Your task to perform on an android device: Open settings on Google Maps Image 0: 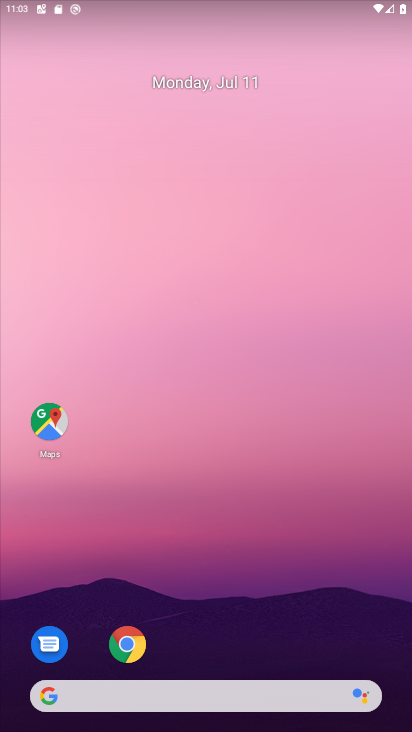
Step 0: click (46, 427)
Your task to perform on an android device: Open settings on Google Maps Image 1: 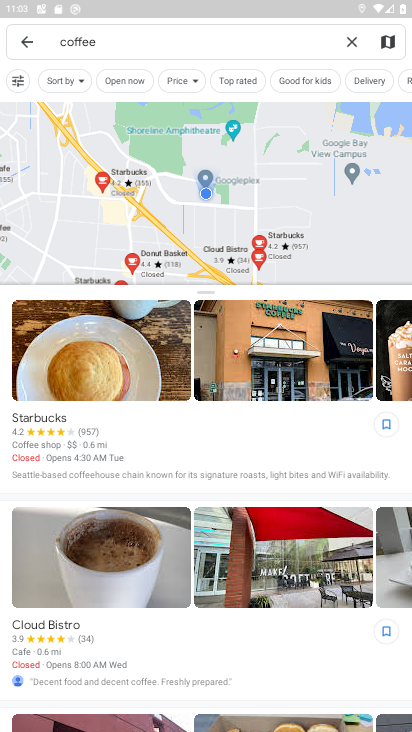
Step 1: click (24, 38)
Your task to perform on an android device: Open settings on Google Maps Image 2: 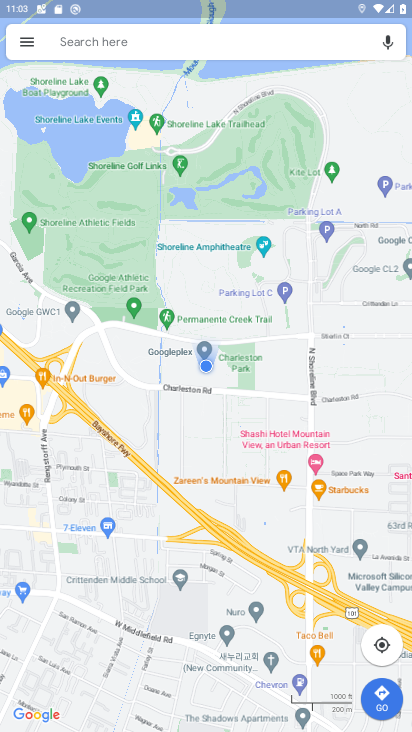
Step 2: click (33, 38)
Your task to perform on an android device: Open settings on Google Maps Image 3: 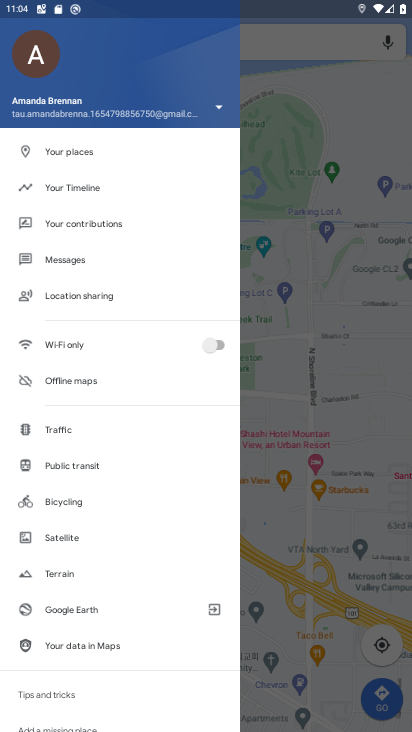
Step 3: drag from (95, 703) to (123, 93)
Your task to perform on an android device: Open settings on Google Maps Image 4: 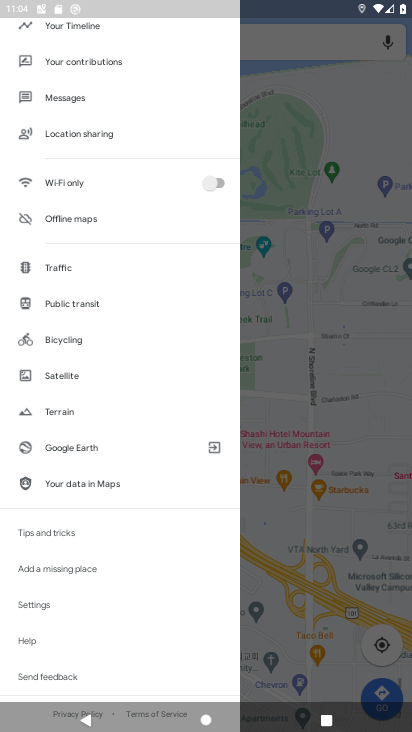
Step 4: click (53, 601)
Your task to perform on an android device: Open settings on Google Maps Image 5: 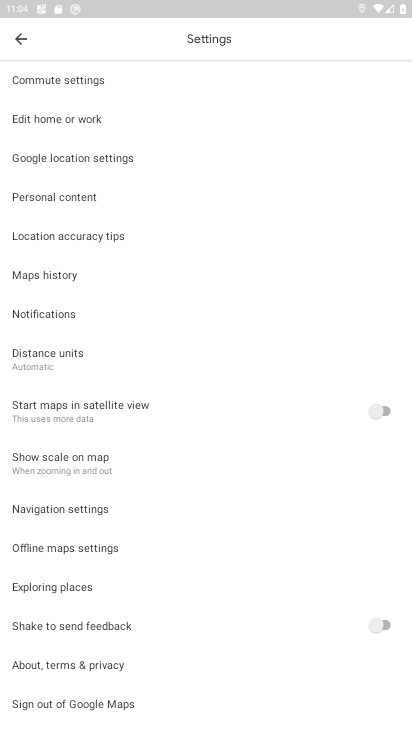
Step 5: task complete